Your task to perform on an android device: Go to network settings Image 0: 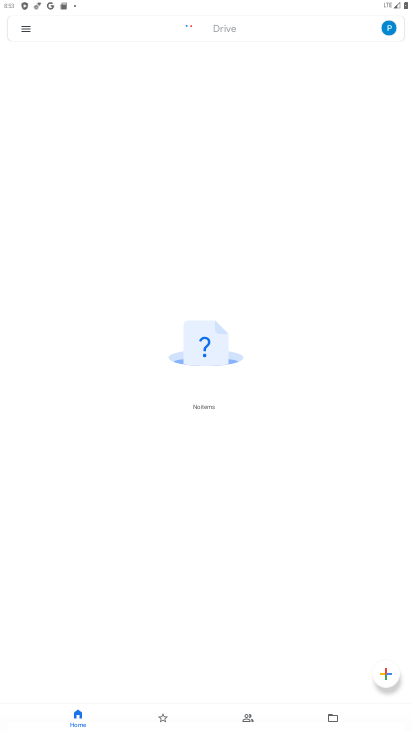
Step 0: press home button
Your task to perform on an android device: Go to network settings Image 1: 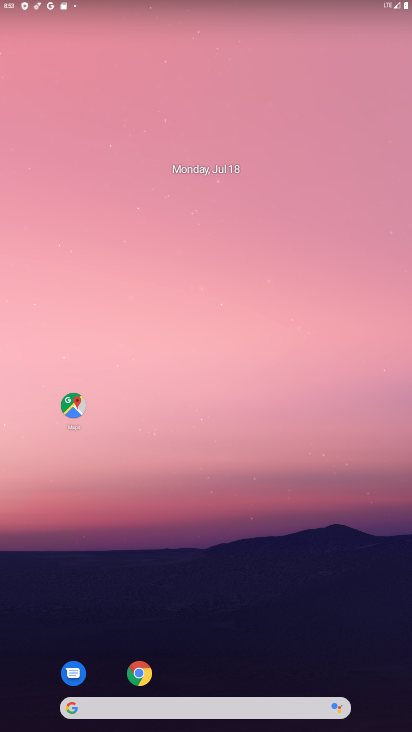
Step 1: drag from (240, 666) to (251, 174)
Your task to perform on an android device: Go to network settings Image 2: 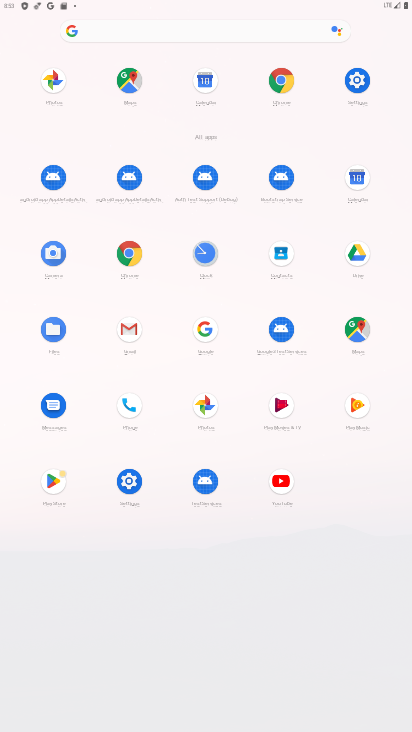
Step 2: click (359, 79)
Your task to perform on an android device: Go to network settings Image 3: 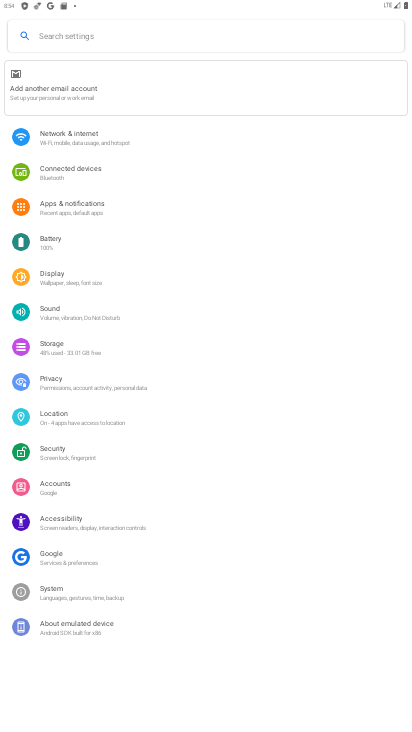
Step 3: click (95, 138)
Your task to perform on an android device: Go to network settings Image 4: 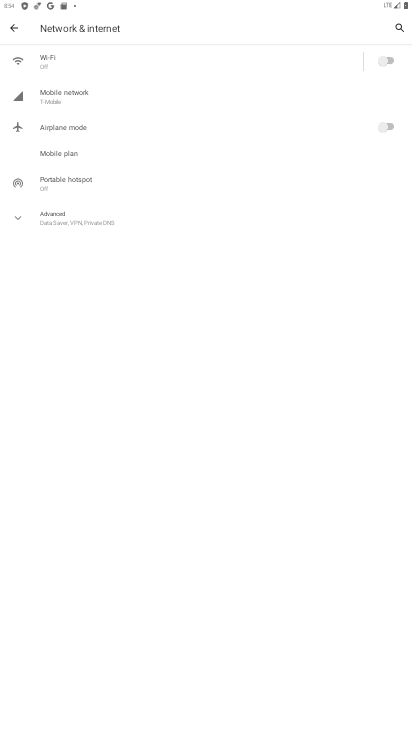
Step 4: click (76, 99)
Your task to perform on an android device: Go to network settings Image 5: 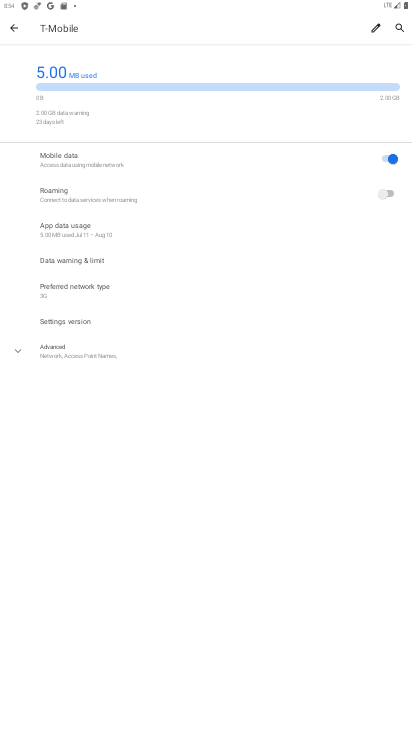
Step 5: task complete